Your task to perform on an android device: toggle improve location accuracy Image 0: 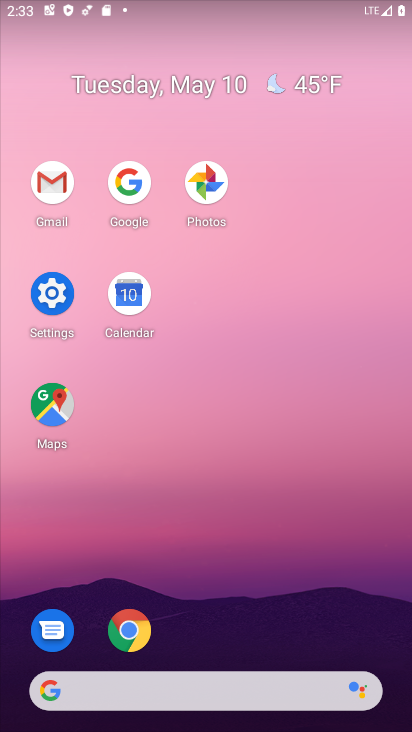
Step 0: click (54, 281)
Your task to perform on an android device: toggle improve location accuracy Image 1: 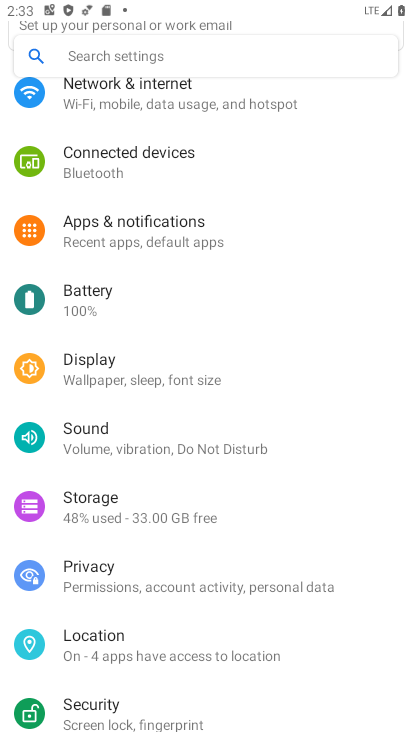
Step 1: click (191, 641)
Your task to perform on an android device: toggle improve location accuracy Image 2: 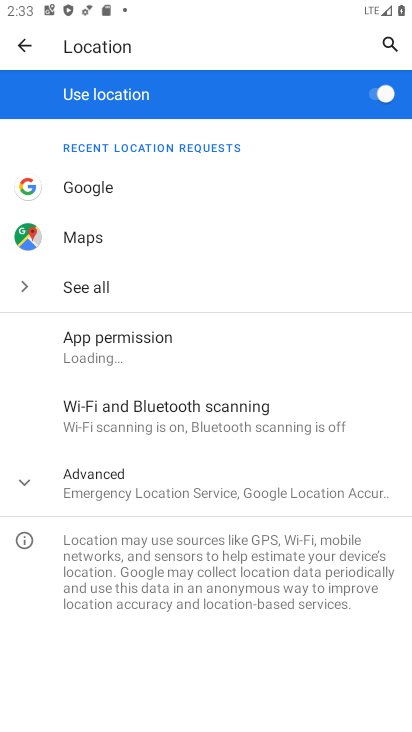
Step 2: click (115, 500)
Your task to perform on an android device: toggle improve location accuracy Image 3: 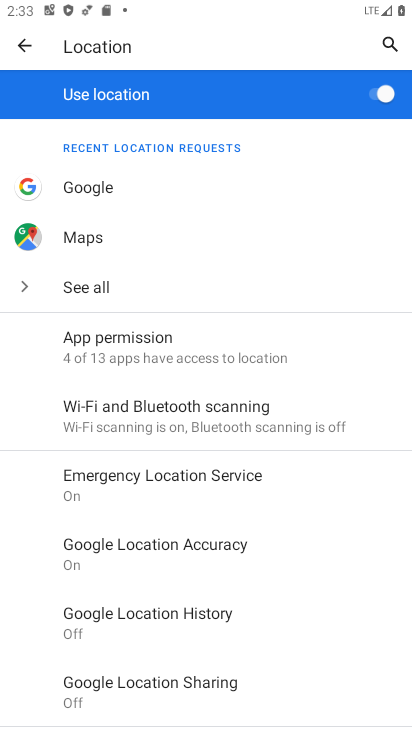
Step 3: click (143, 552)
Your task to perform on an android device: toggle improve location accuracy Image 4: 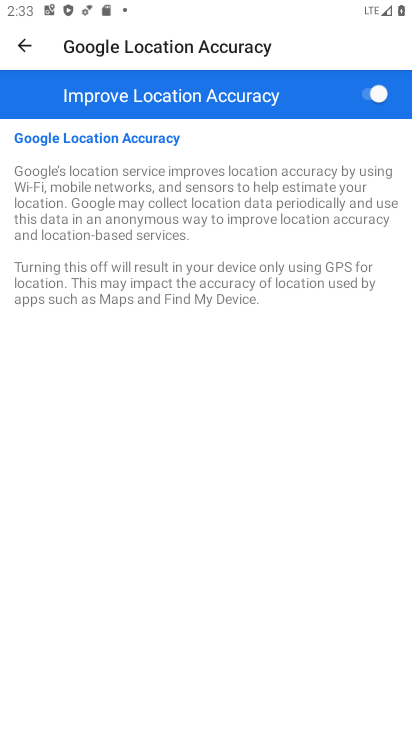
Step 4: task complete